Your task to perform on an android device: turn on the 24-hour format for clock Image 0: 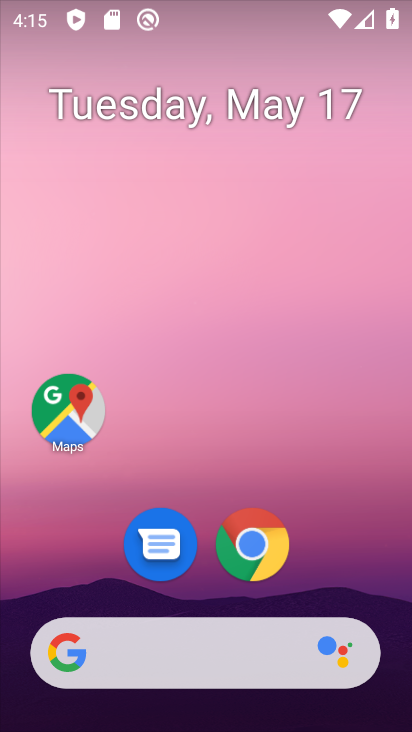
Step 0: drag from (97, 594) to (313, 149)
Your task to perform on an android device: turn on the 24-hour format for clock Image 1: 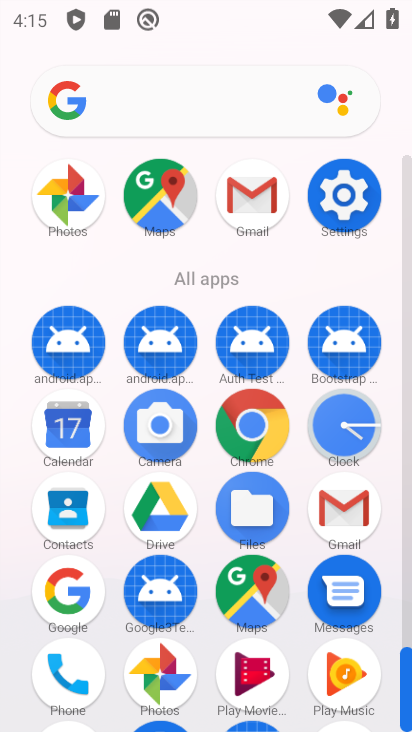
Step 1: click (346, 431)
Your task to perform on an android device: turn on the 24-hour format for clock Image 2: 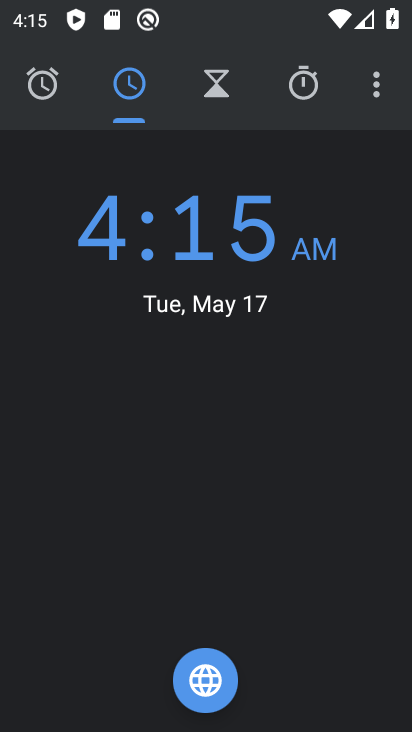
Step 2: click (377, 82)
Your task to perform on an android device: turn on the 24-hour format for clock Image 3: 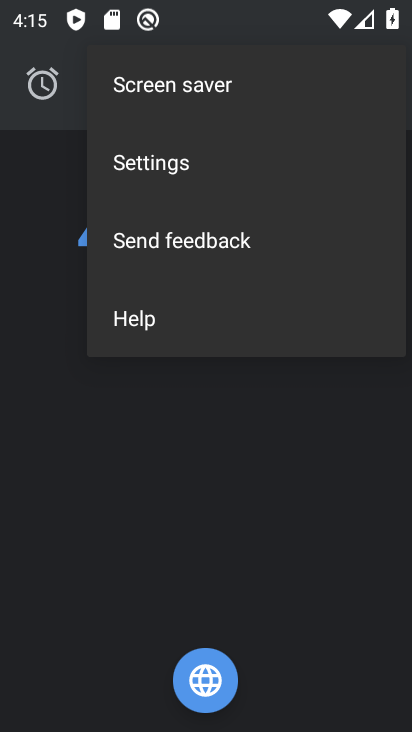
Step 3: click (298, 157)
Your task to perform on an android device: turn on the 24-hour format for clock Image 4: 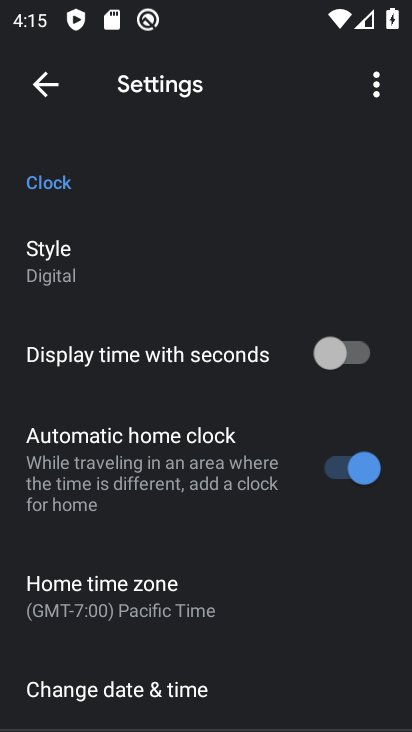
Step 4: click (205, 696)
Your task to perform on an android device: turn on the 24-hour format for clock Image 5: 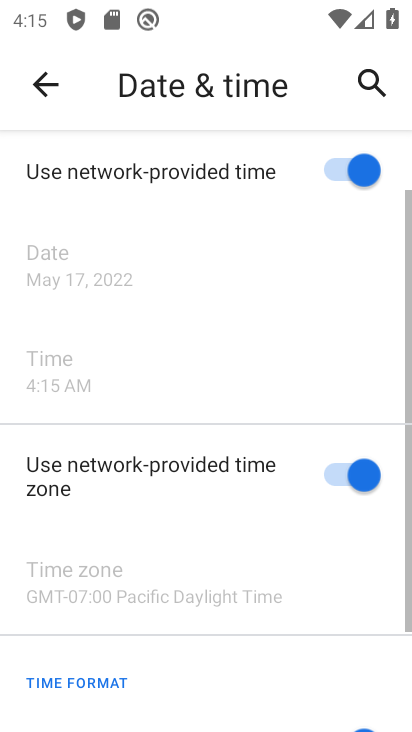
Step 5: drag from (131, 643) to (269, 164)
Your task to perform on an android device: turn on the 24-hour format for clock Image 6: 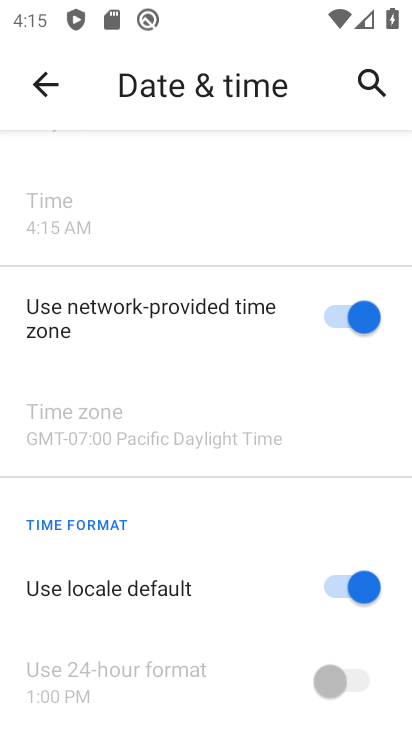
Step 6: click (349, 582)
Your task to perform on an android device: turn on the 24-hour format for clock Image 7: 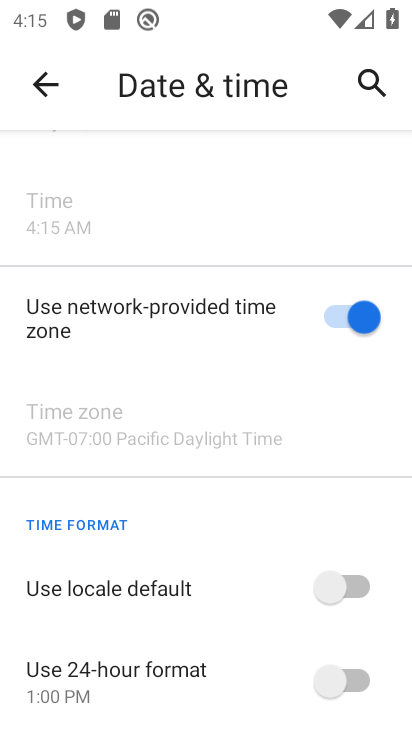
Step 7: click (373, 681)
Your task to perform on an android device: turn on the 24-hour format for clock Image 8: 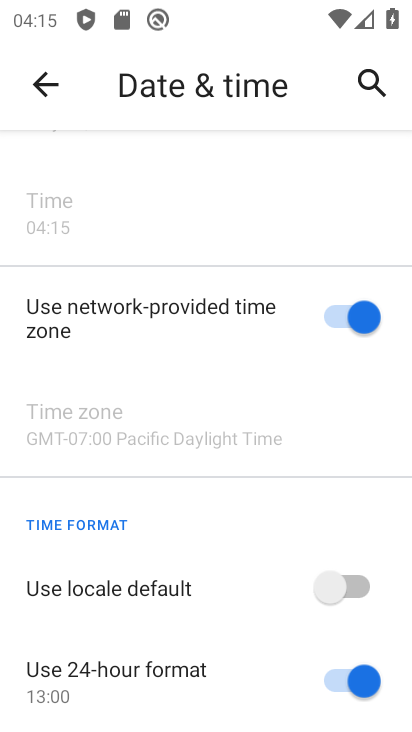
Step 8: task complete